Your task to perform on an android device: Open the stopwatch Image 0: 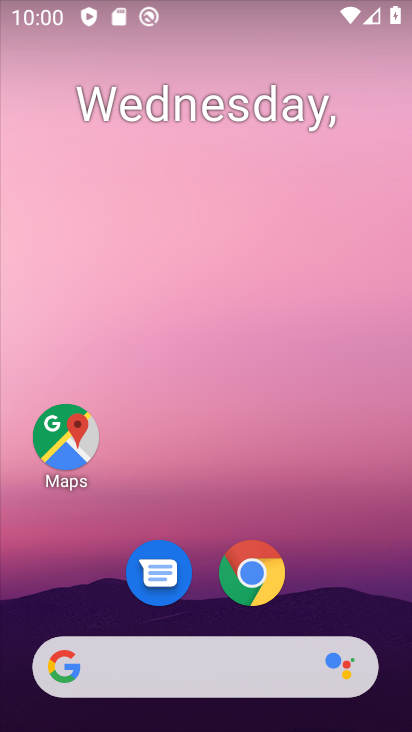
Step 0: drag from (372, 428) to (374, 213)
Your task to perform on an android device: Open the stopwatch Image 1: 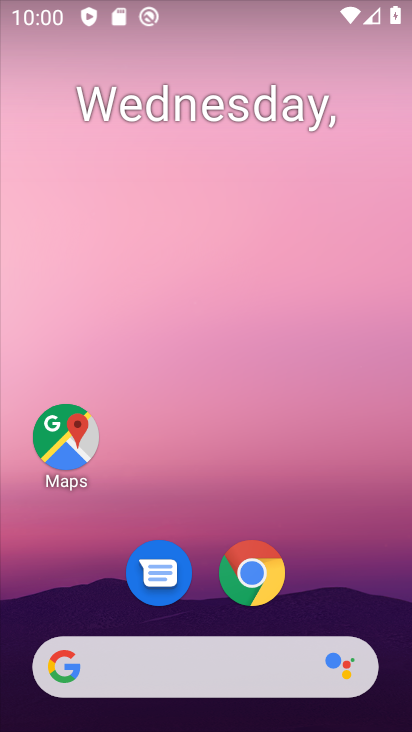
Step 1: drag from (384, 418) to (392, 173)
Your task to perform on an android device: Open the stopwatch Image 2: 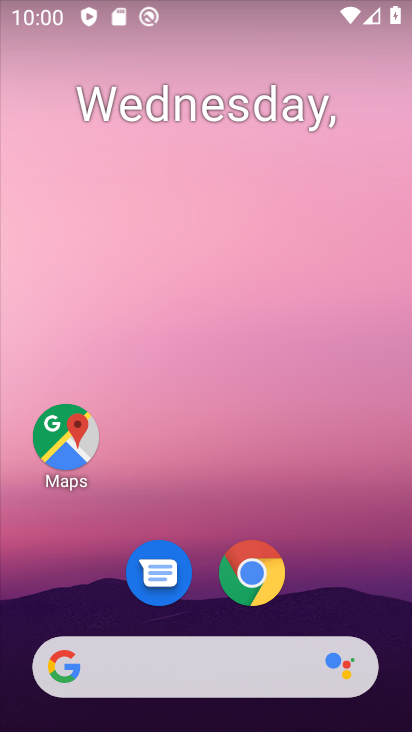
Step 2: drag from (353, 544) to (371, 290)
Your task to perform on an android device: Open the stopwatch Image 3: 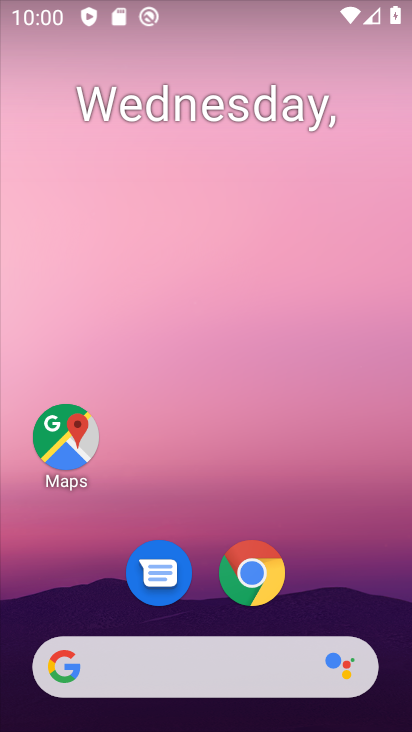
Step 3: drag from (377, 352) to (355, 119)
Your task to perform on an android device: Open the stopwatch Image 4: 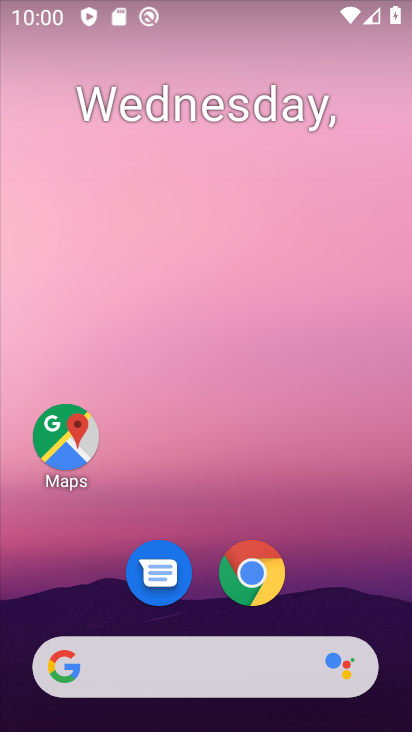
Step 4: drag from (381, 598) to (376, 374)
Your task to perform on an android device: Open the stopwatch Image 5: 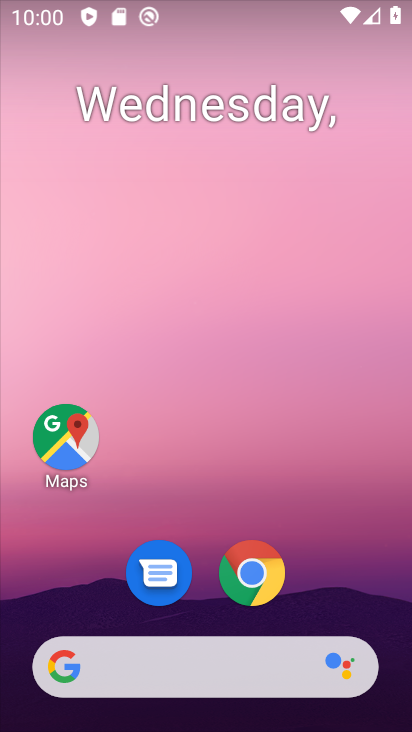
Step 5: drag from (388, 629) to (377, 99)
Your task to perform on an android device: Open the stopwatch Image 6: 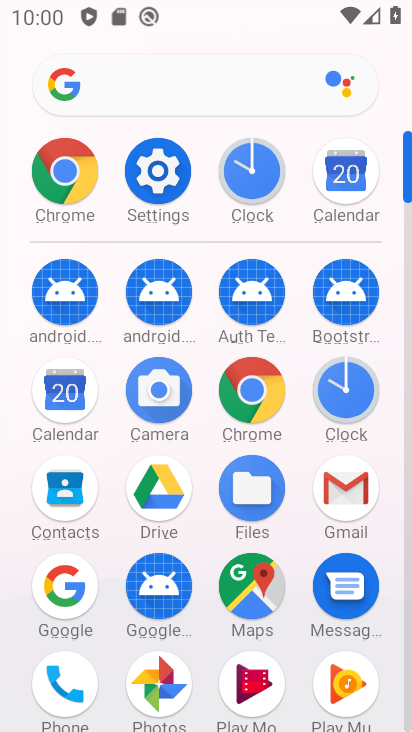
Step 6: click (330, 385)
Your task to perform on an android device: Open the stopwatch Image 7: 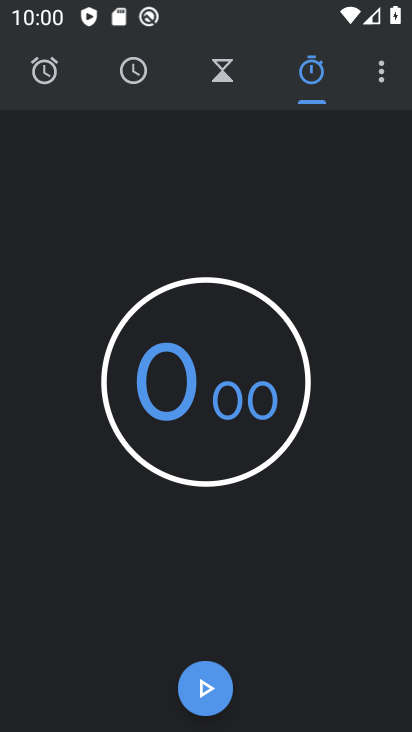
Step 7: task complete